Your task to perform on an android device: Show me productivity apps on the Play Store Image 0: 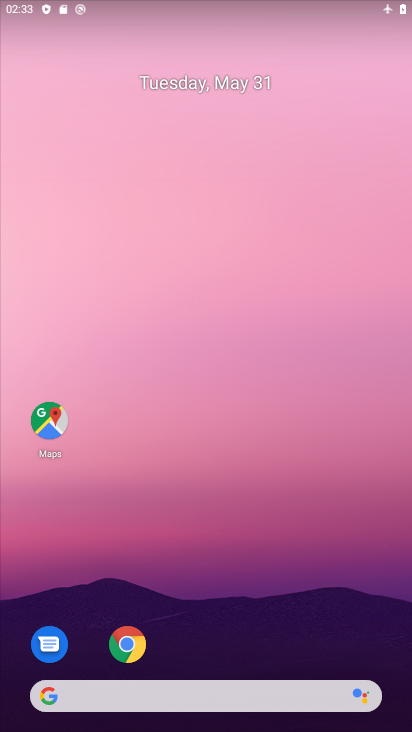
Step 0: drag from (255, 531) to (253, 223)
Your task to perform on an android device: Show me productivity apps on the Play Store Image 1: 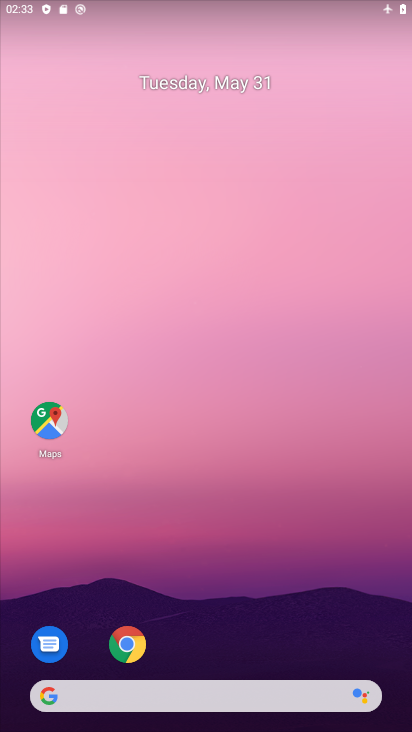
Step 1: drag from (251, 645) to (317, 133)
Your task to perform on an android device: Show me productivity apps on the Play Store Image 2: 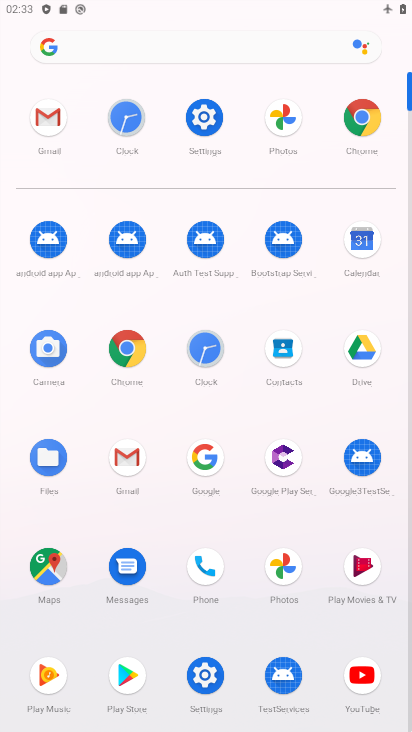
Step 2: click (132, 672)
Your task to perform on an android device: Show me productivity apps on the Play Store Image 3: 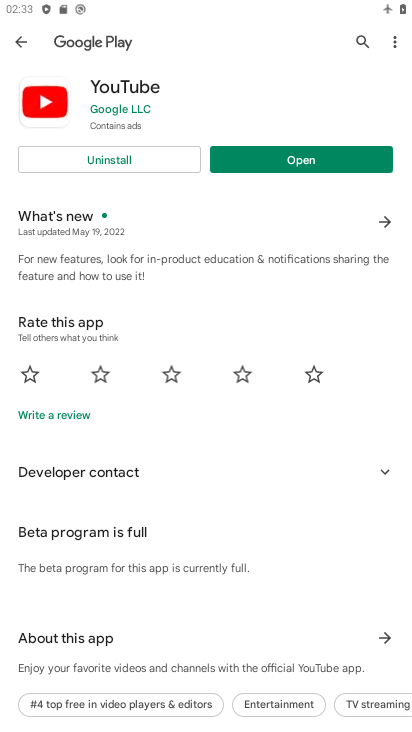
Step 3: click (23, 42)
Your task to perform on an android device: Show me productivity apps on the Play Store Image 4: 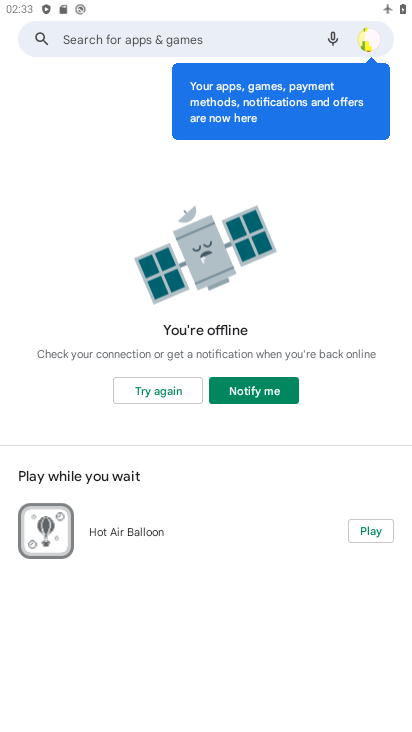
Step 4: task complete